Your task to perform on an android device: Open eBay Image 0: 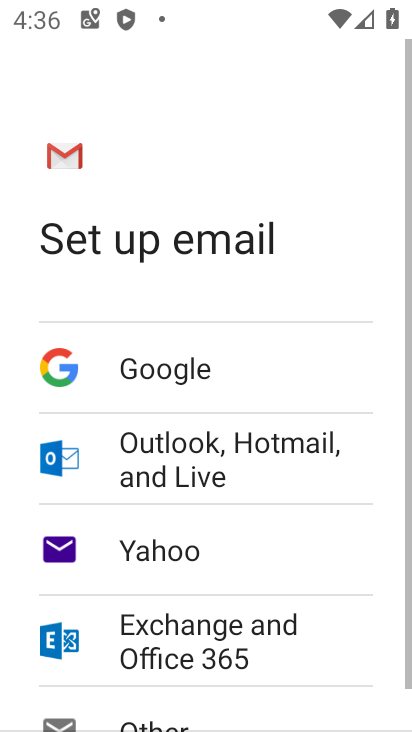
Step 0: press home button
Your task to perform on an android device: Open eBay Image 1: 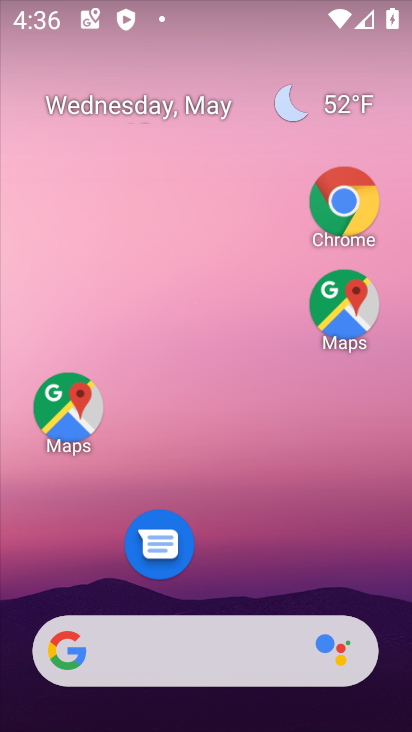
Step 1: click (320, 221)
Your task to perform on an android device: Open eBay Image 2: 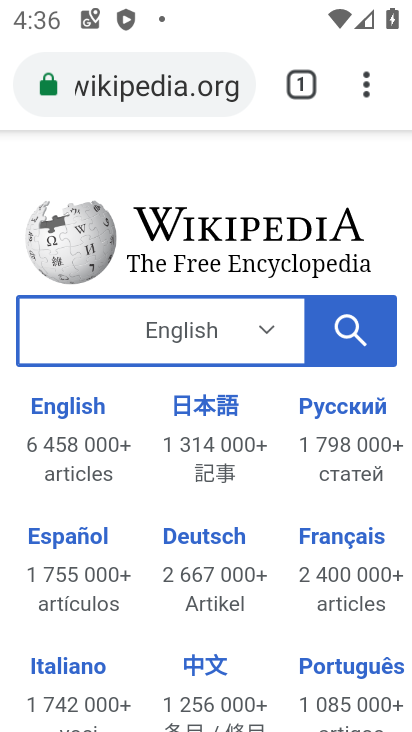
Step 2: press back button
Your task to perform on an android device: Open eBay Image 3: 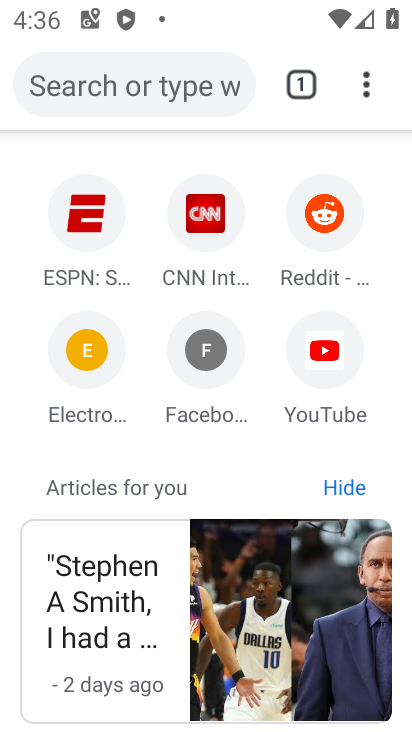
Step 3: click (135, 88)
Your task to perform on an android device: Open eBay Image 4: 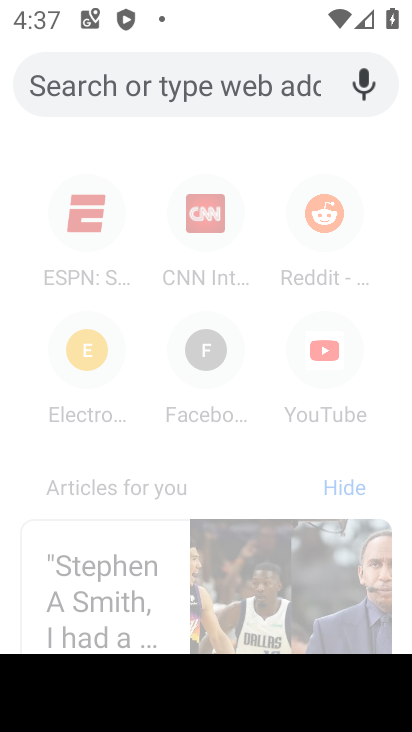
Step 4: type "www.ebay.com"
Your task to perform on an android device: Open eBay Image 5: 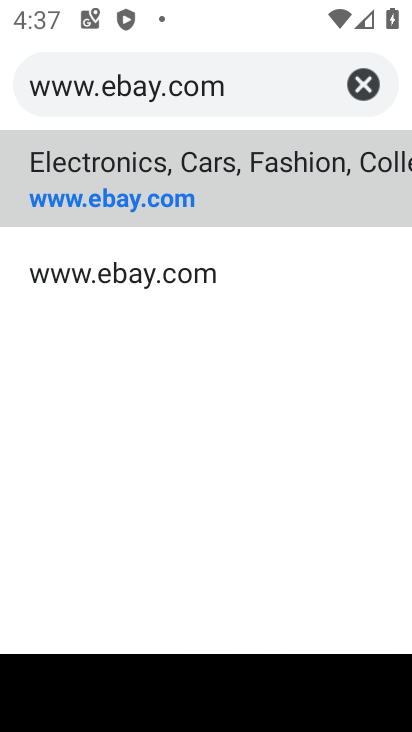
Step 5: click (127, 190)
Your task to perform on an android device: Open eBay Image 6: 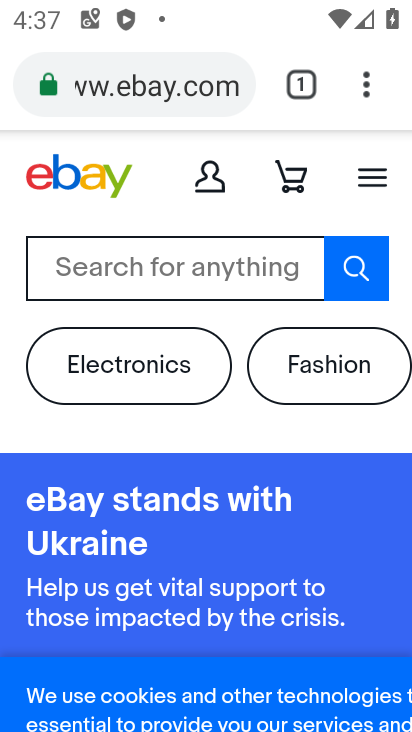
Step 6: task complete